Your task to perform on an android device: toggle notification dots Image 0: 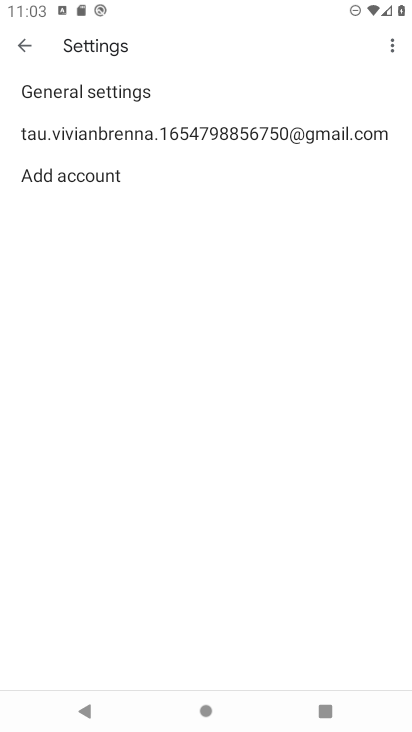
Step 0: press home button
Your task to perform on an android device: toggle notification dots Image 1: 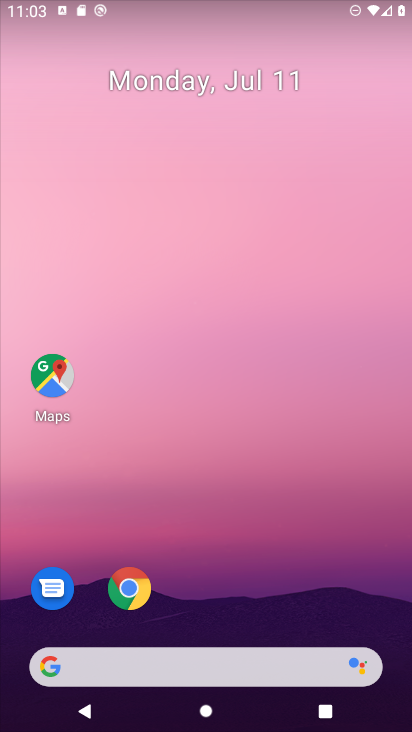
Step 1: drag from (409, 672) to (271, 185)
Your task to perform on an android device: toggle notification dots Image 2: 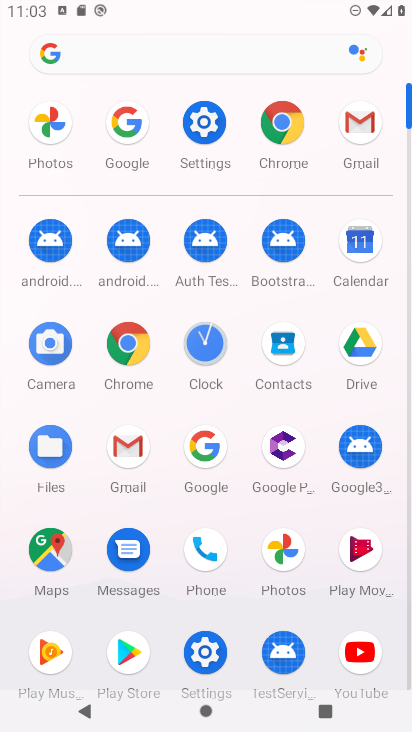
Step 2: click (184, 124)
Your task to perform on an android device: toggle notification dots Image 3: 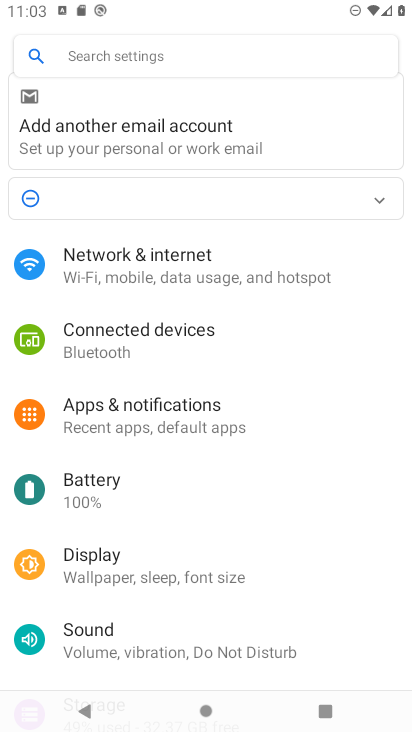
Step 3: click (119, 413)
Your task to perform on an android device: toggle notification dots Image 4: 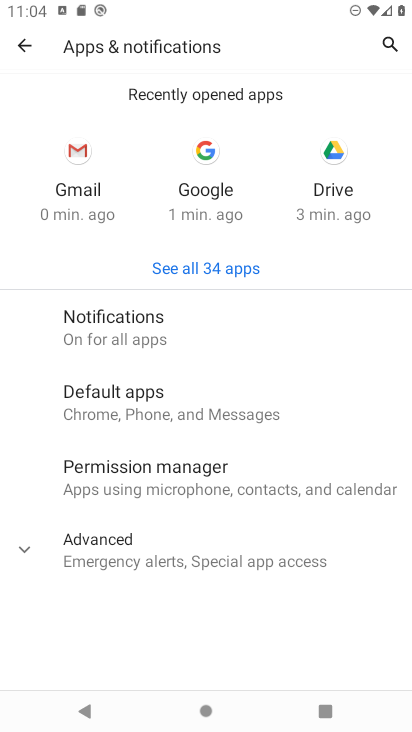
Step 4: click (193, 330)
Your task to perform on an android device: toggle notification dots Image 5: 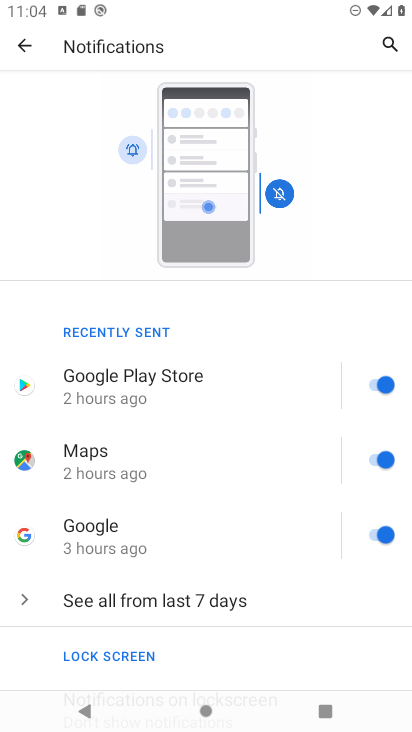
Step 5: drag from (195, 621) to (213, 116)
Your task to perform on an android device: toggle notification dots Image 6: 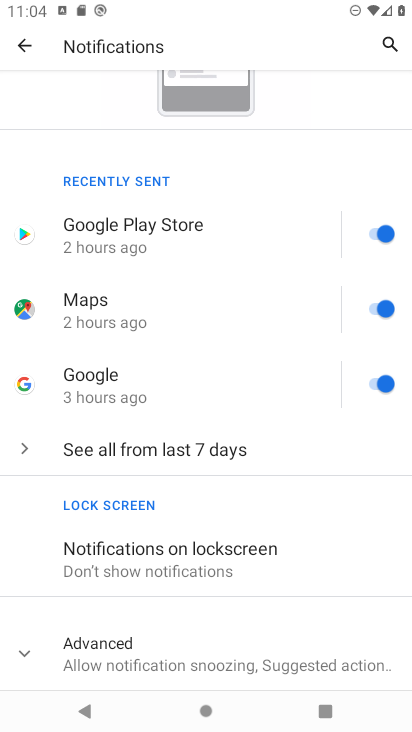
Step 6: click (122, 665)
Your task to perform on an android device: toggle notification dots Image 7: 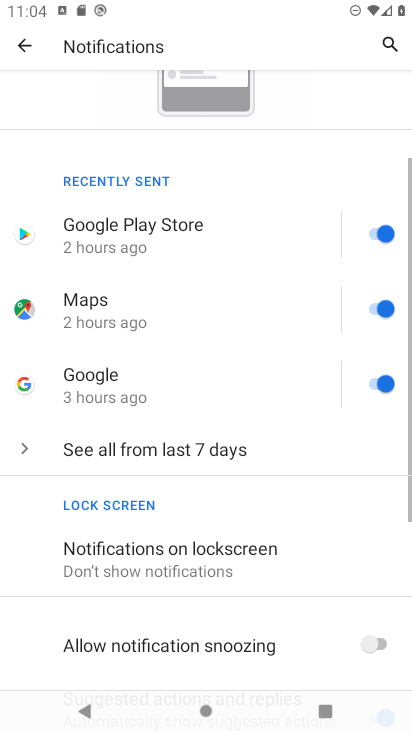
Step 7: drag from (122, 664) to (144, 168)
Your task to perform on an android device: toggle notification dots Image 8: 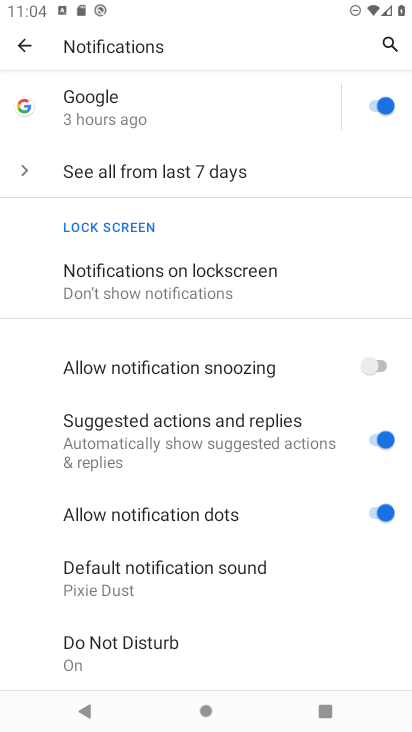
Step 8: click (296, 517)
Your task to perform on an android device: toggle notification dots Image 9: 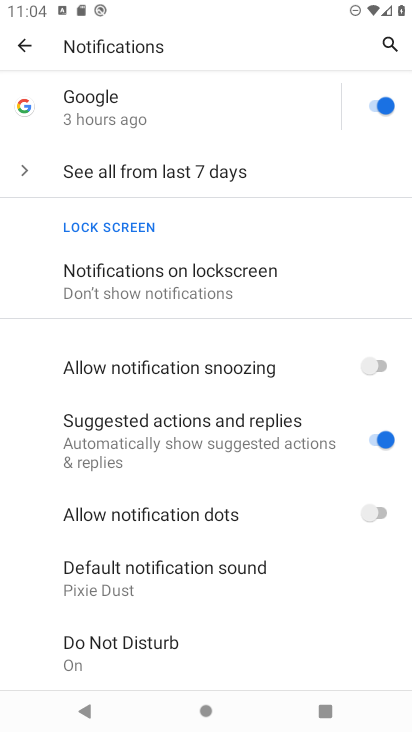
Step 9: task complete